Your task to perform on an android device: Search for the best rated Bluetooth earbuds on Ali express Image 0: 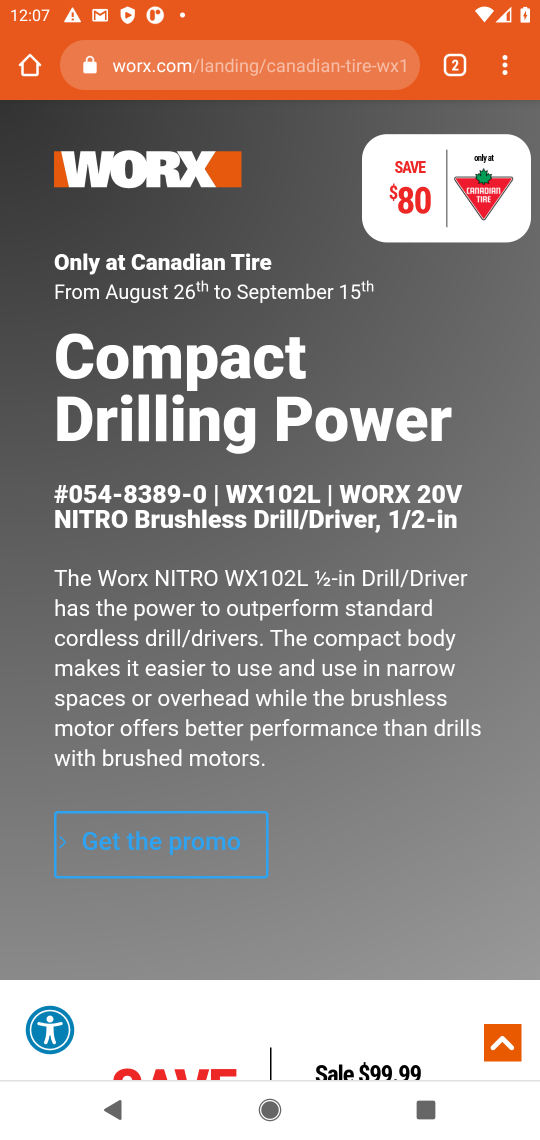
Step 0: press home button
Your task to perform on an android device: Search for the best rated Bluetooth earbuds on Ali express Image 1: 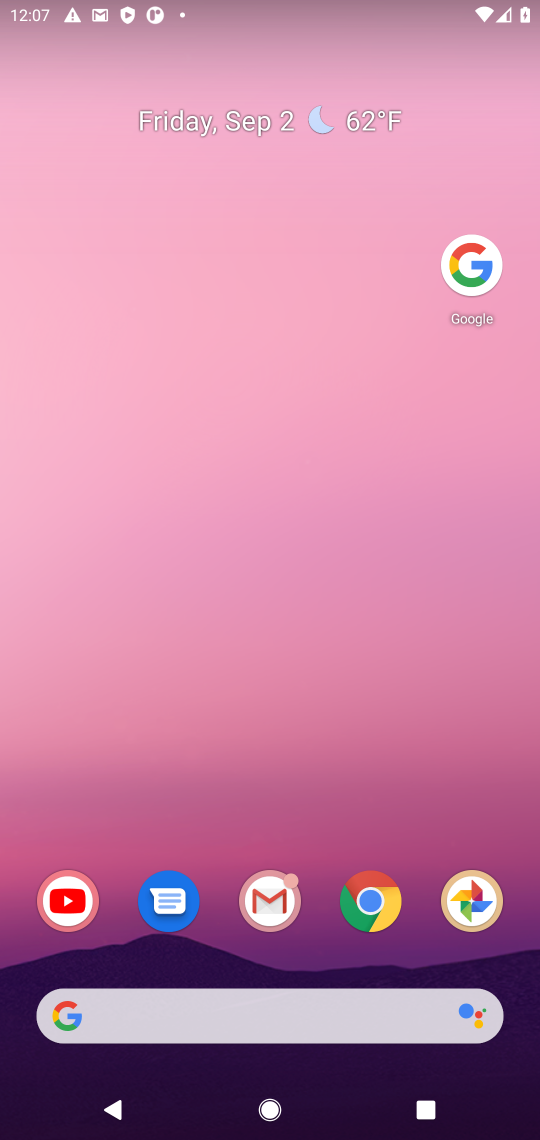
Step 1: click (304, 986)
Your task to perform on an android device: Search for the best rated Bluetooth earbuds on Ali express Image 2: 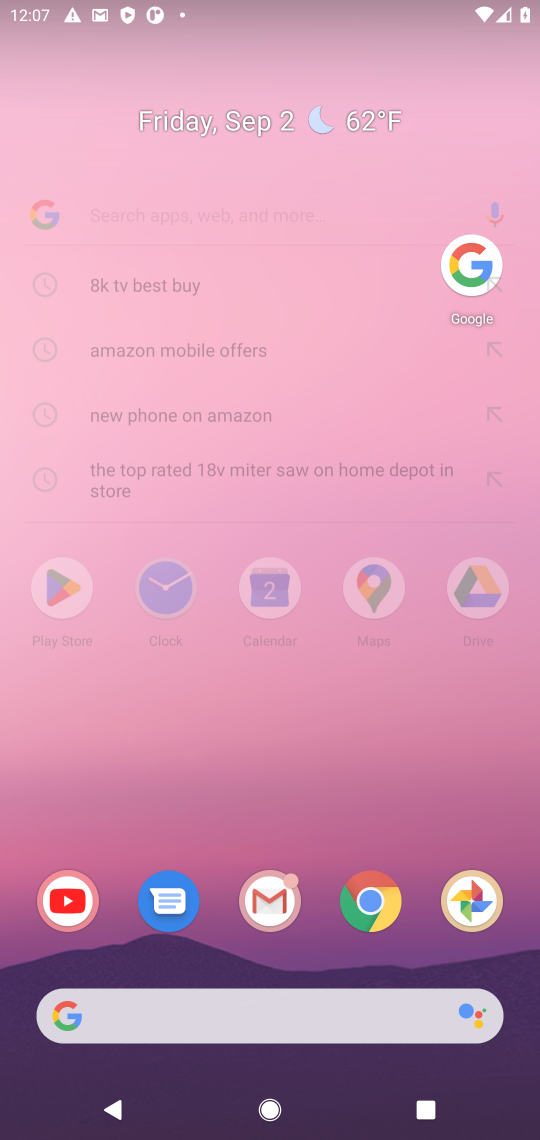
Step 2: click (475, 245)
Your task to perform on an android device: Search for the best rated Bluetooth earbuds on Ali express Image 3: 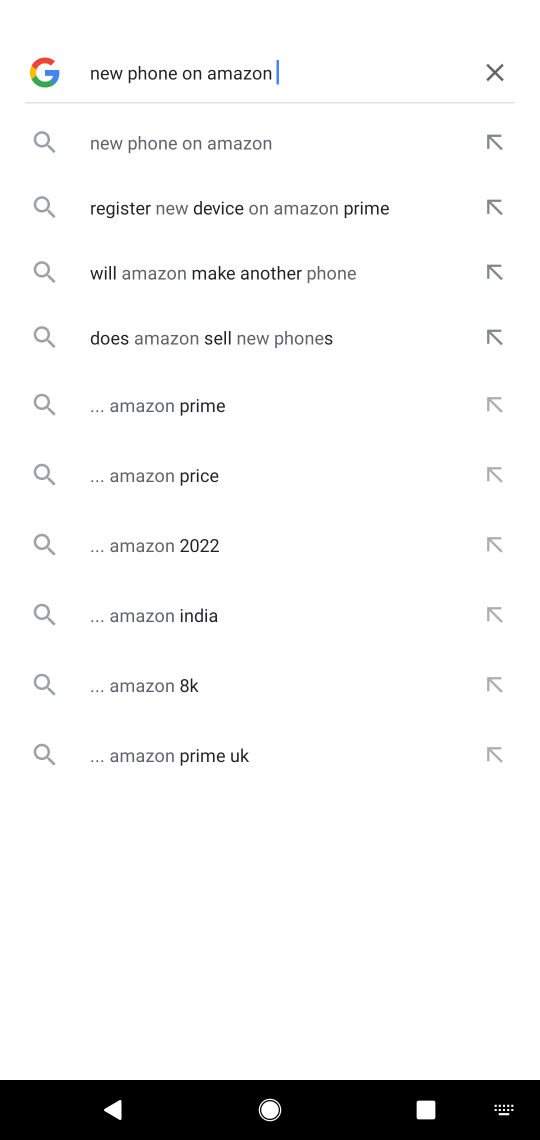
Step 3: press home button
Your task to perform on an android device: Search for the best rated Bluetooth earbuds on Ali express Image 4: 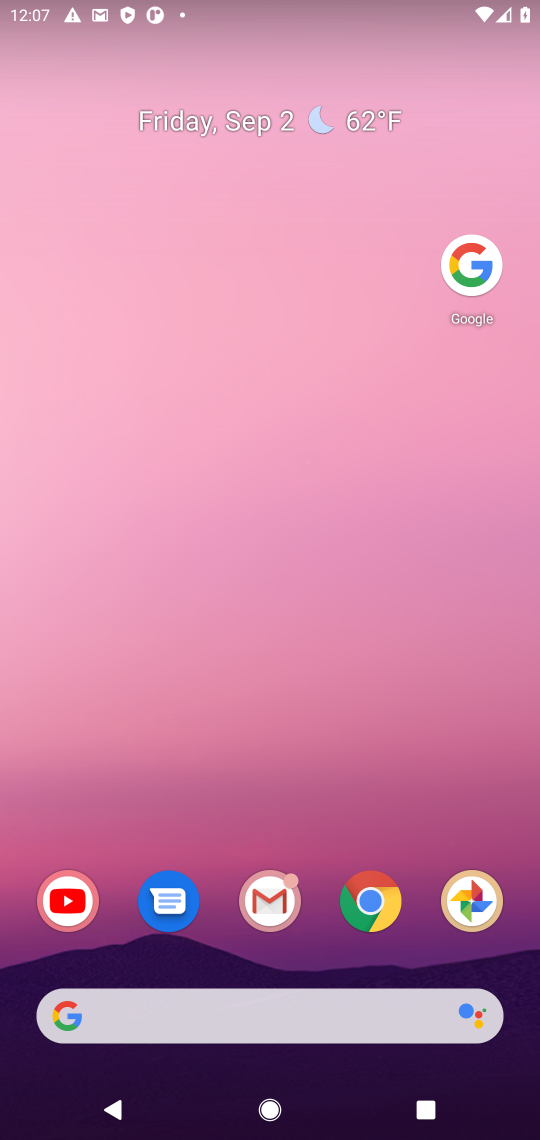
Step 4: click (469, 273)
Your task to perform on an android device: Search for the best rated Bluetooth earbuds on Ali express Image 5: 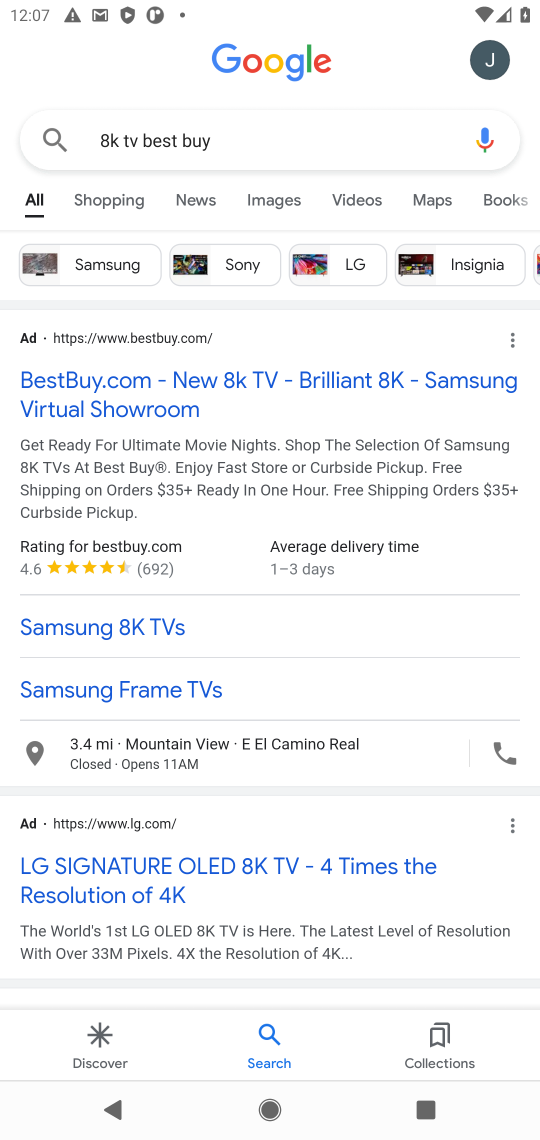
Step 5: click (270, 134)
Your task to perform on an android device: Search for the best rated Bluetooth earbuds on Ali express Image 6: 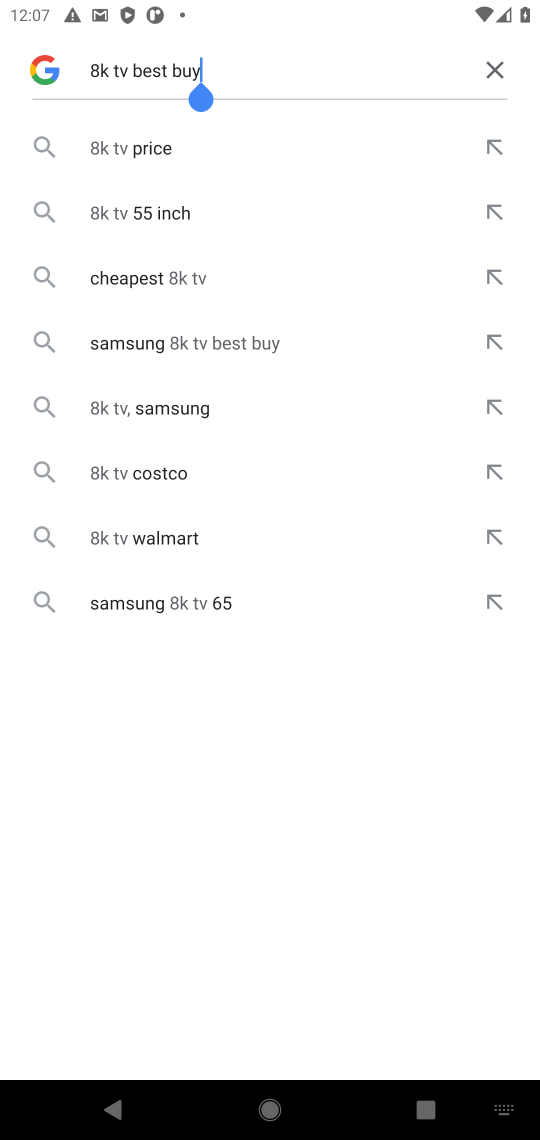
Step 6: click (505, 74)
Your task to perform on an android device: Search for the best rated Bluetooth earbuds on Ali express Image 7: 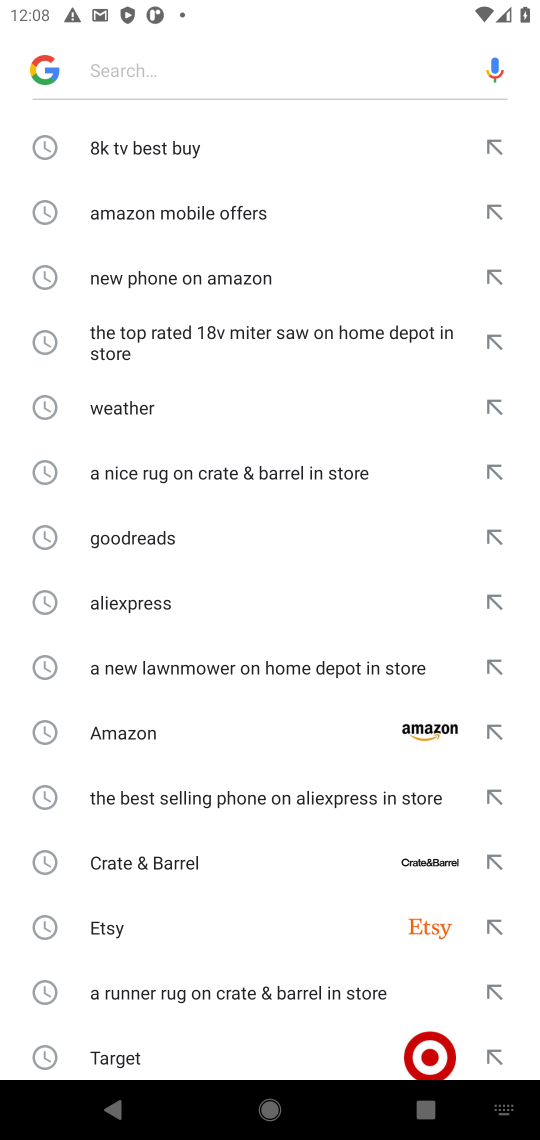
Step 7: click (271, 30)
Your task to perform on an android device: Search for the best rated Bluetooth earbuds on Ali express Image 8: 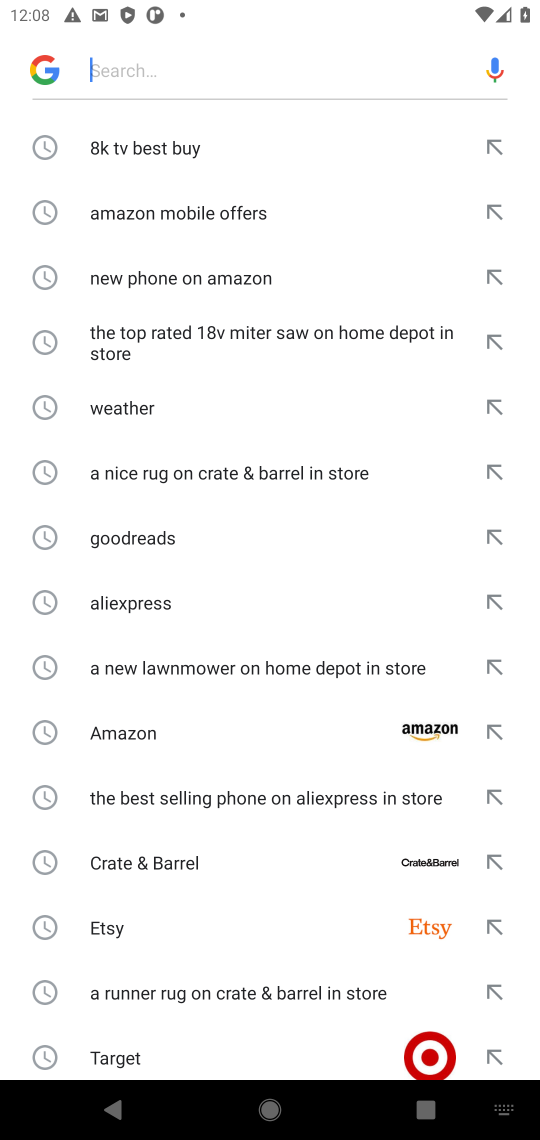
Step 8: type " the best rated Bluetooth earbuds on Ali express "
Your task to perform on an android device: Search for the best rated Bluetooth earbuds on Ali express Image 9: 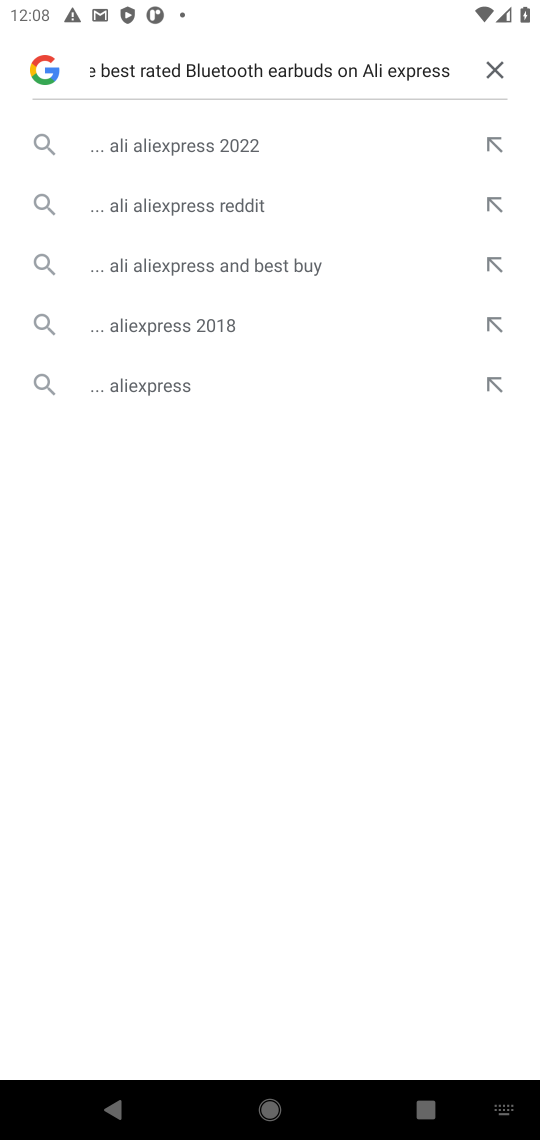
Step 9: click (142, 380)
Your task to perform on an android device: Search for the best rated Bluetooth earbuds on Ali express Image 10: 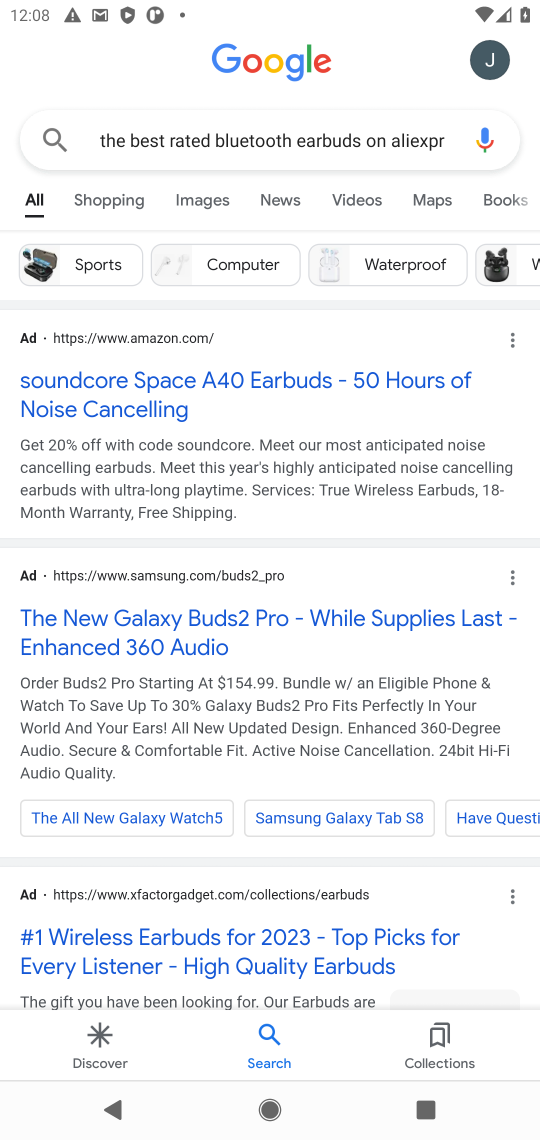
Step 10: drag from (254, 848) to (359, 400)
Your task to perform on an android device: Search for the best rated Bluetooth earbuds on Ali express Image 11: 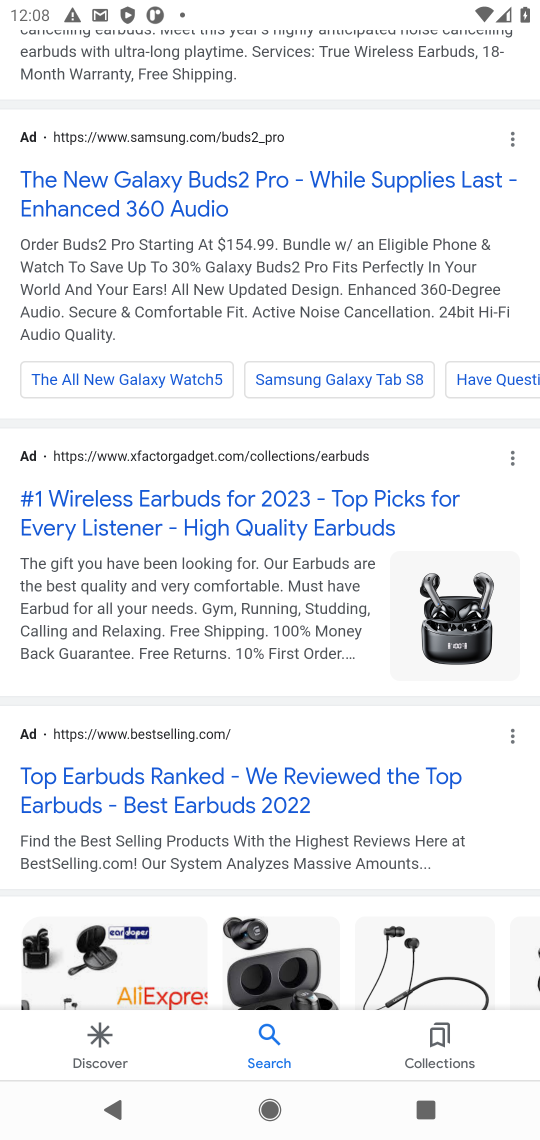
Step 11: drag from (250, 878) to (338, 374)
Your task to perform on an android device: Search for the best rated Bluetooth earbuds on Ali express Image 12: 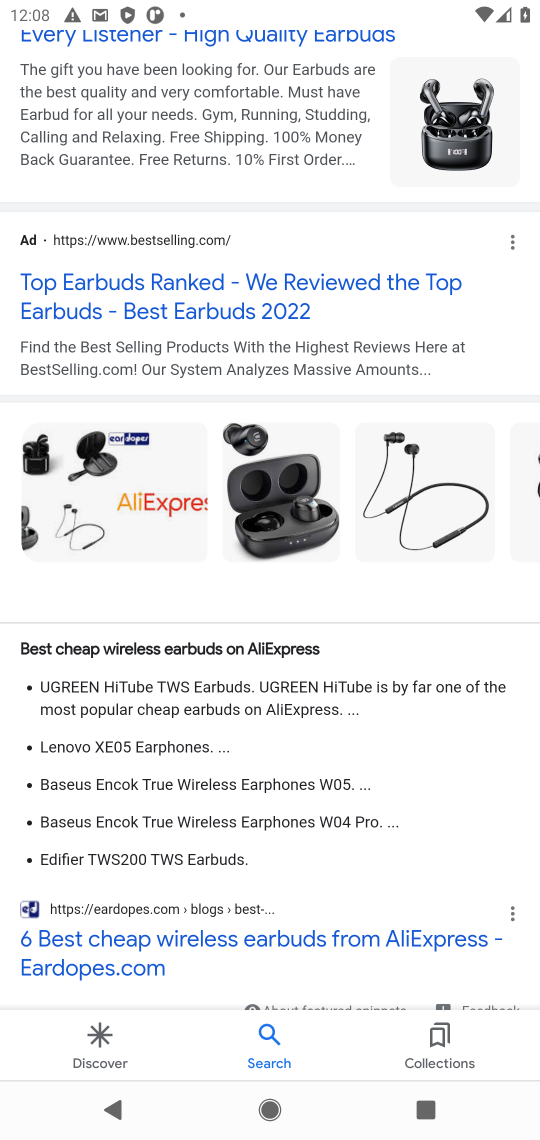
Step 12: click (199, 944)
Your task to perform on an android device: Search for the best rated Bluetooth earbuds on Ali express Image 13: 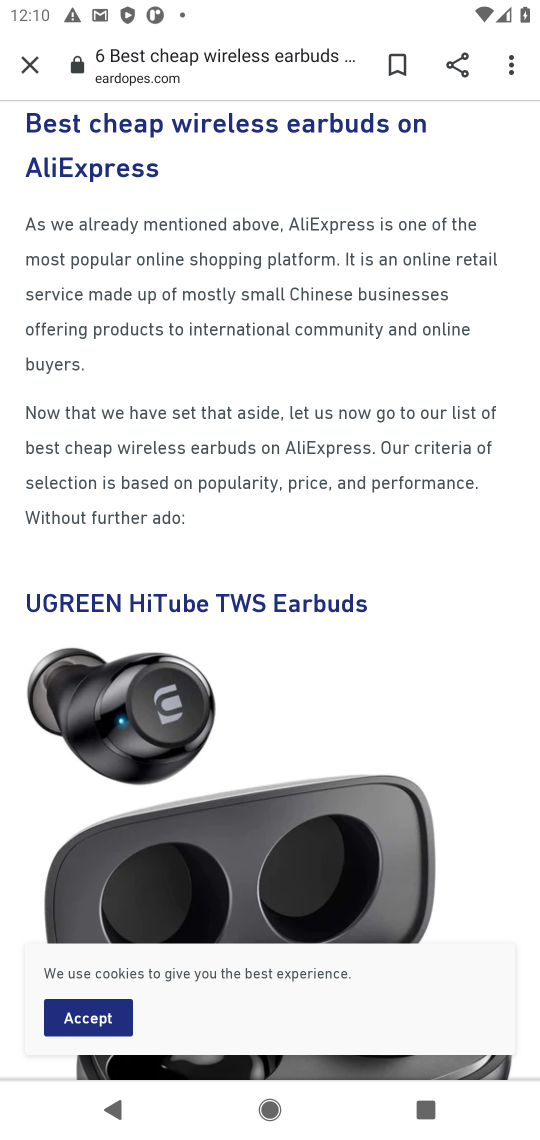
Step 13: task complete